Your task to perform on an android device: Go to ESPN.com Image 0: 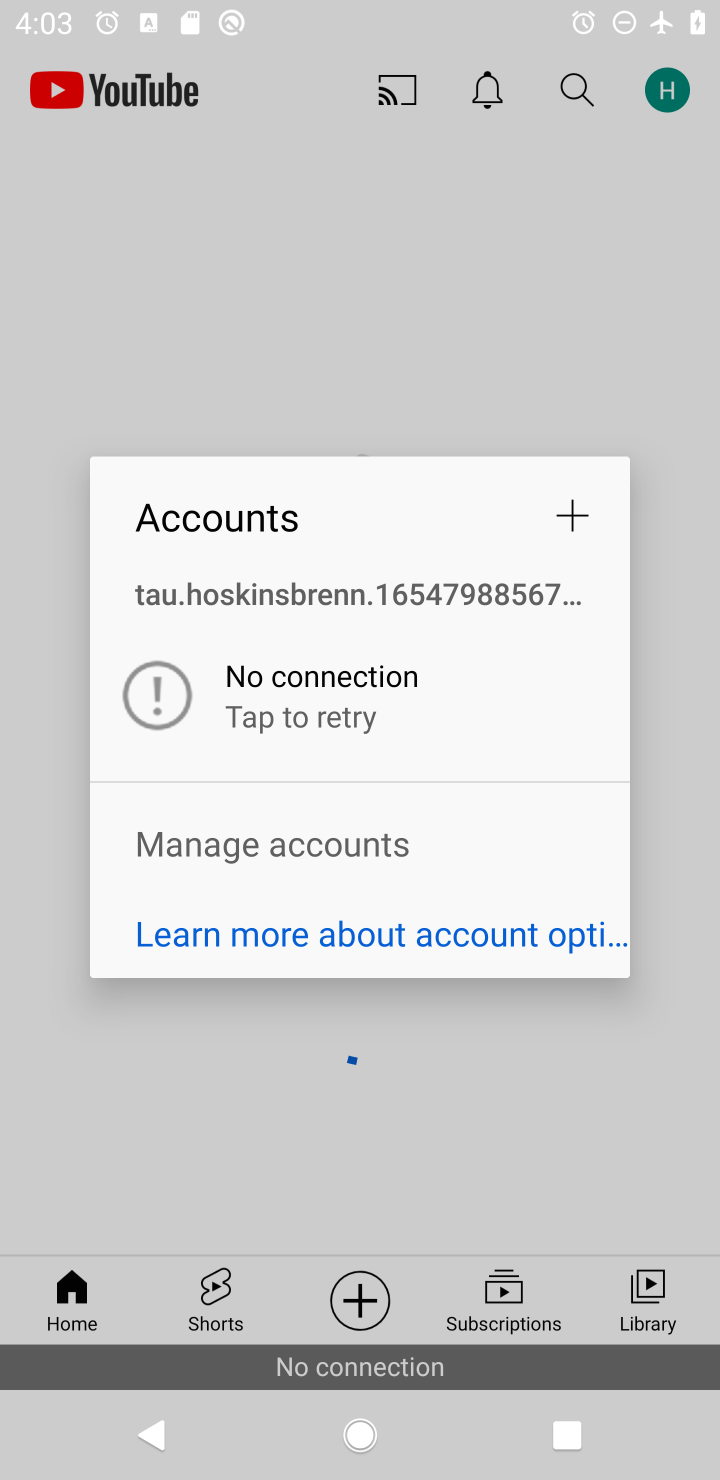
Step 0: press home button
Your task to perform on an android device: Go to ESPN.com Image 1: 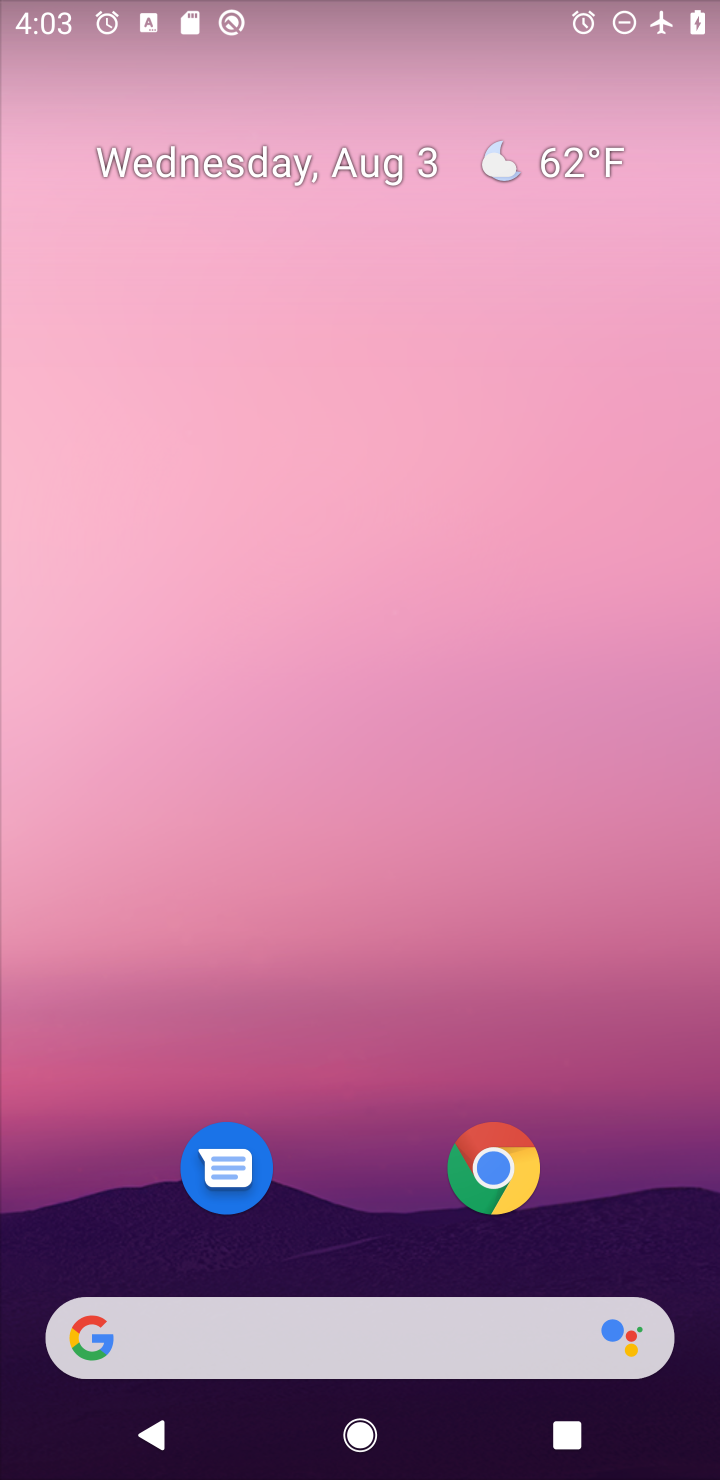
Step 1: click (479, 1163)
Your task to perform on an android device: Go to ESPN.com Image 2: 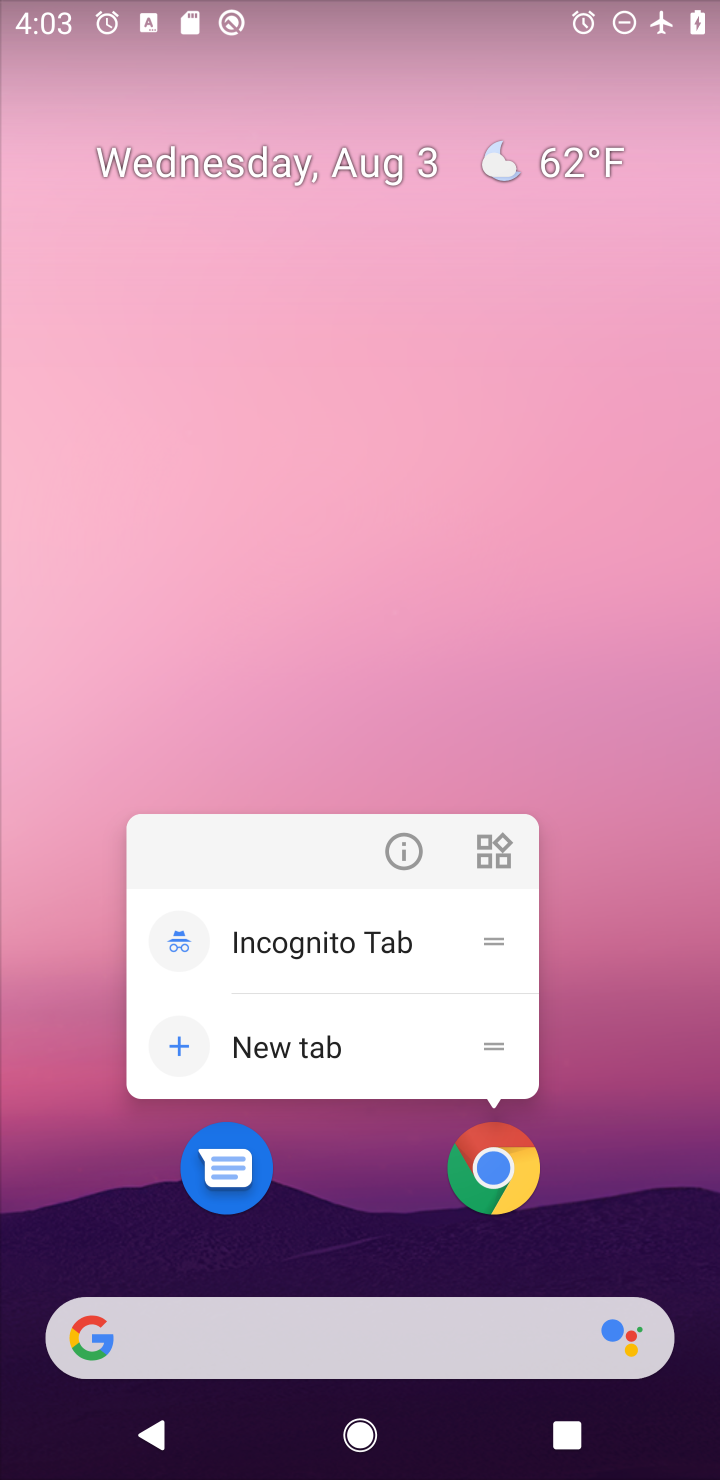
Step 2: click (489, 1167)
Your task to perform on an android device: Go to ESPN.com Image 3: 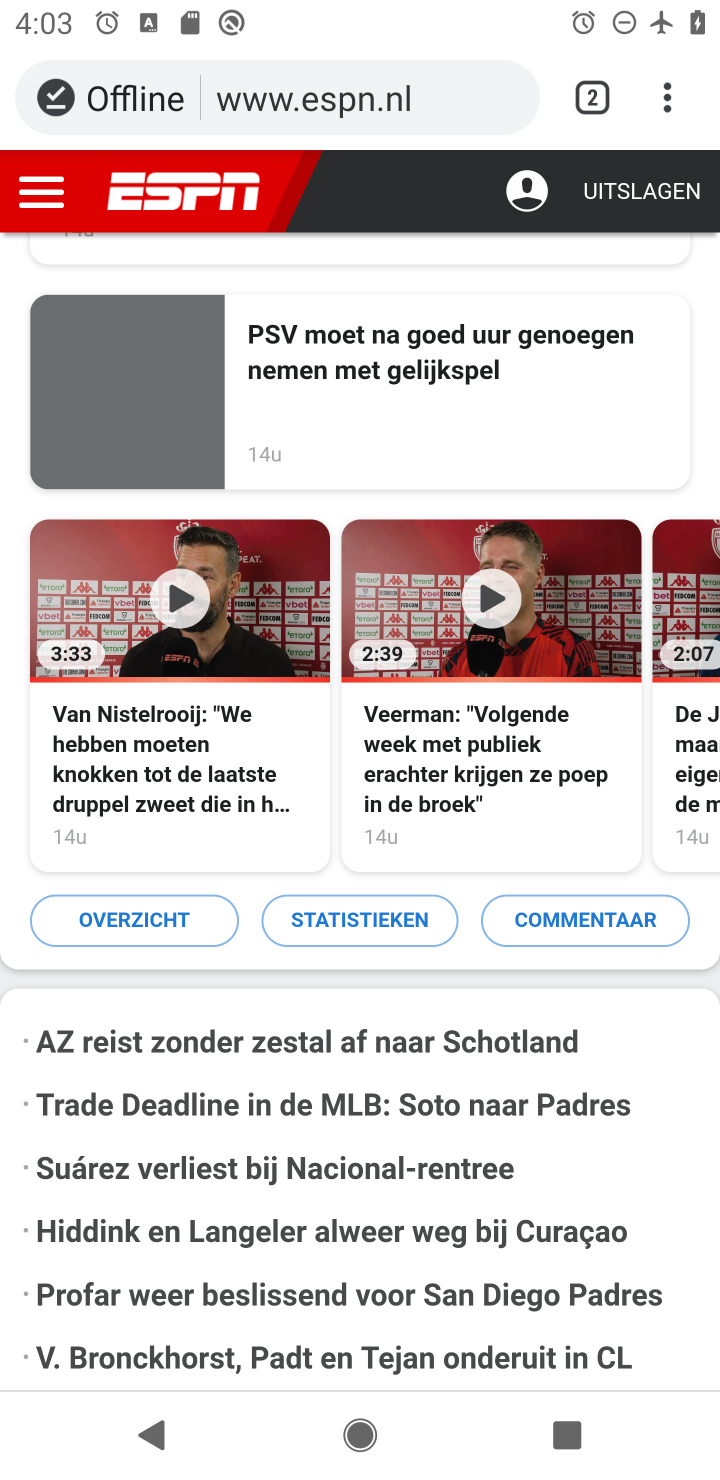
Step 3: task complete